Your task to perform on an android device: What is the news today? Image 0: 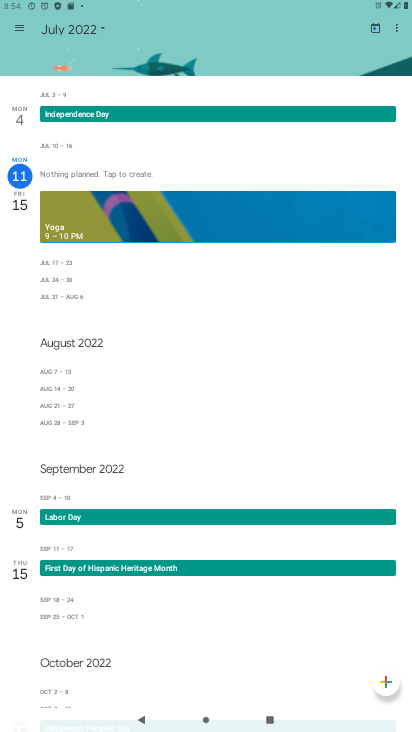
Step 0: press home button
Your task to perform on an android device: What is the news today? Image 1: 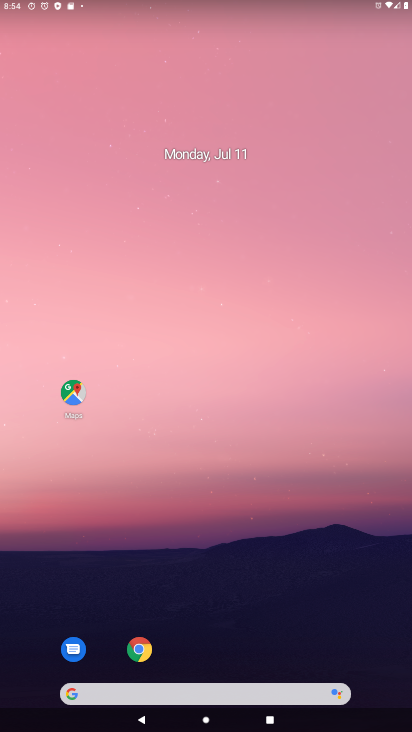
Step 1: click (139, 647)
Your task to perform on an android device: What is the news today? Image 2: 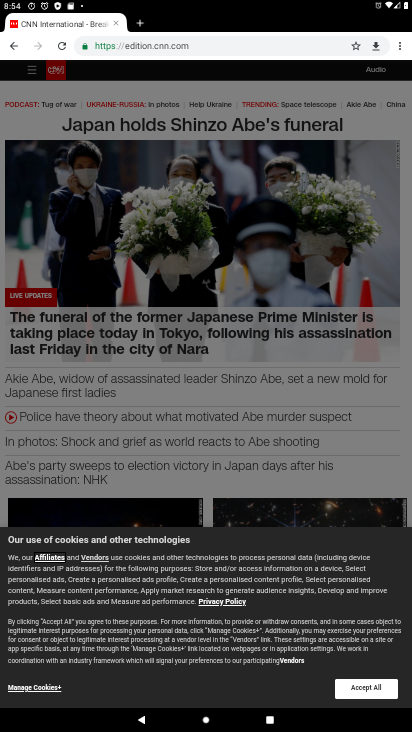
Step 2: click (270, 46)
Your task to perform on an android device: What is the news today? Image 3: 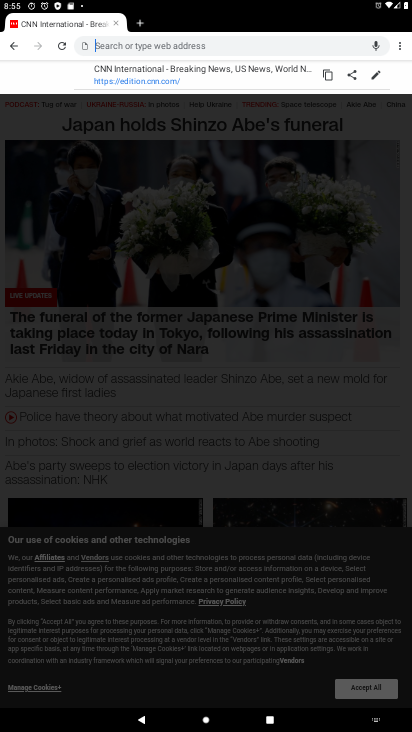
Step 3: type "what is the news today?"
Your task to perform on an android device: What is the news today? Image 4: 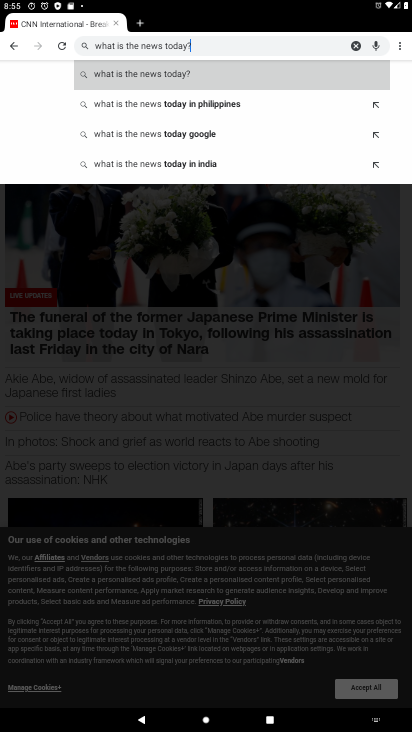
Step 4: click (285, 78)
Your task to perform on an android device: What is the news today? Image 5: 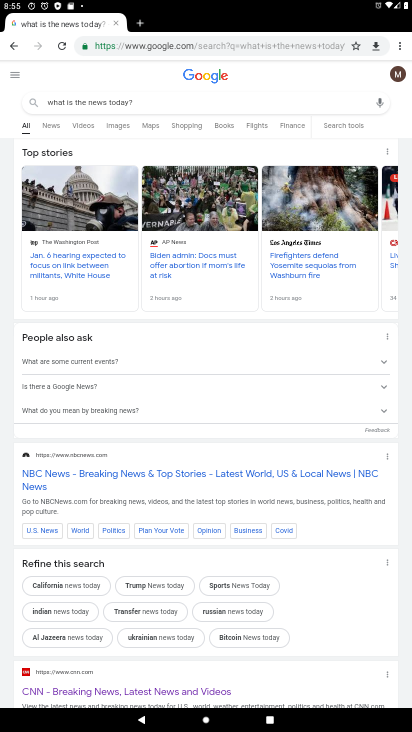
Step 5: click (79, 254)
Your task to perform on an android device: What is the news today? Image 6: 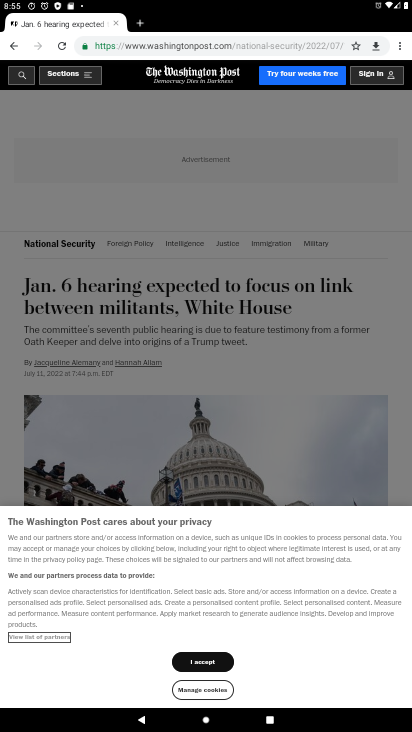
Step 6: click (202, 658)
Your task to perform on an android device: What is the news today? Image 7: 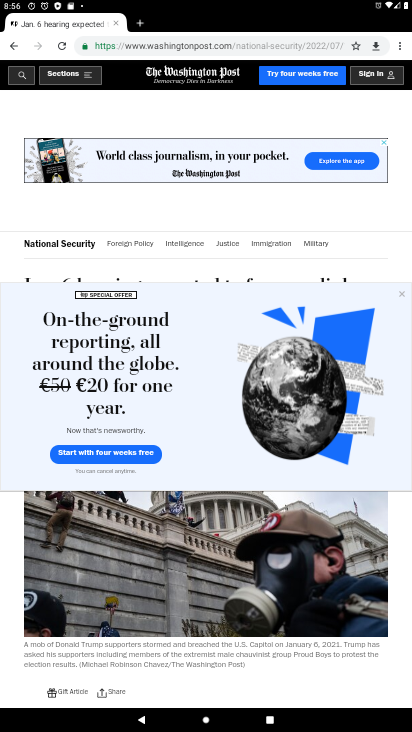
Step 7: task complete